Your task to perform on an android device: Go to location settings Image 0: 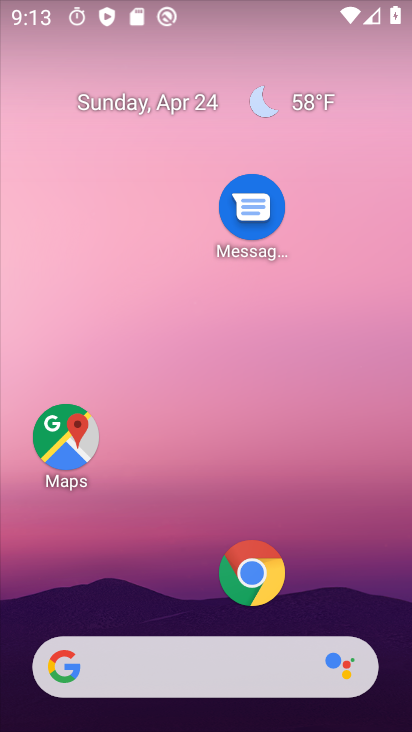
Step 0: drag from (157, 548) to (176, 116)
Your task to perform on an android device: Go to location settings Image 1: 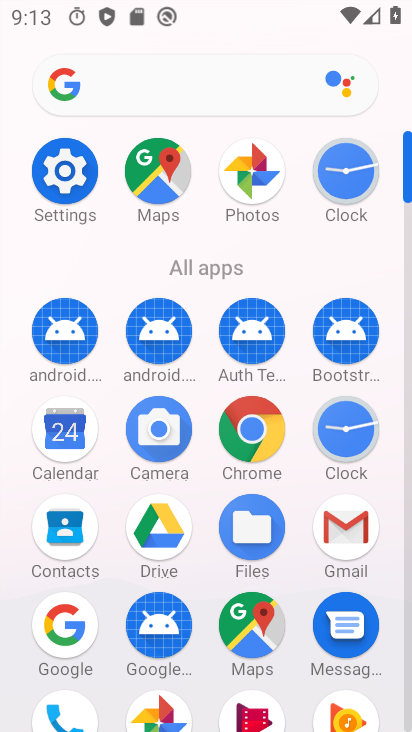
Step 1: click (70, 198)
Your task to perform on an android device: Go to location settings Image 2: 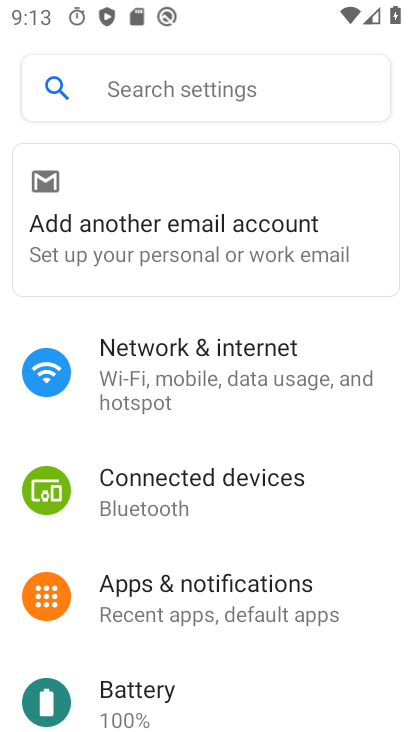
Step 2: drag from (165, 630) to (209, 169)
Your task to perform on an android device: Go to location settings Image 3: 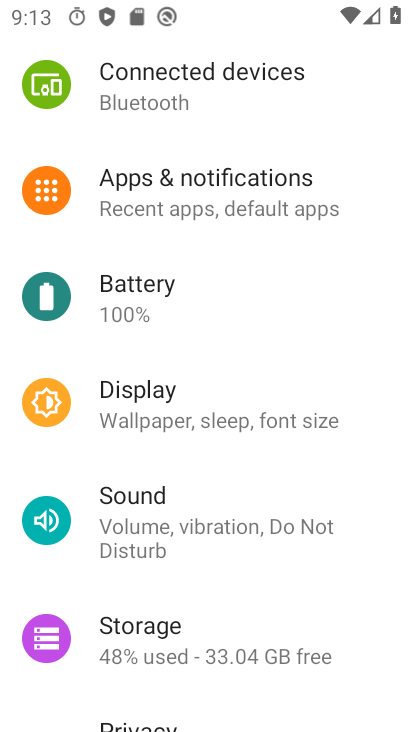
Step 3: drag from (176, 554) to (267, 105)
Your task to perform on an android device: Go to location settings Image 4: 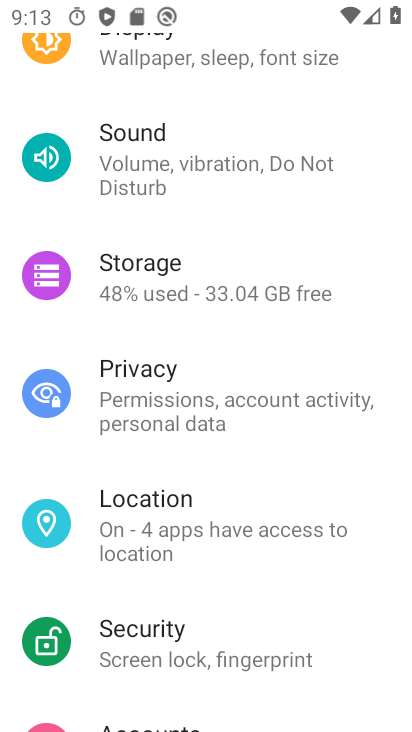
Step 4: click (179, 520)
Your task to perform on an android device: Go to location settings Image 5: 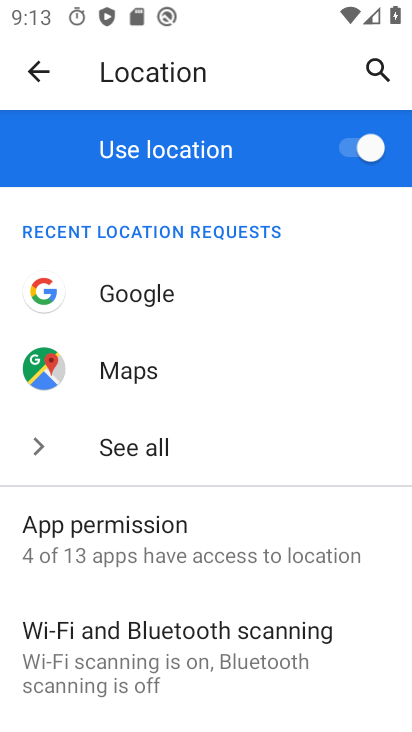
Step 5: task complete